Your task to perform on an android device: Open the phone app and click the voicemail tab. Image 0: 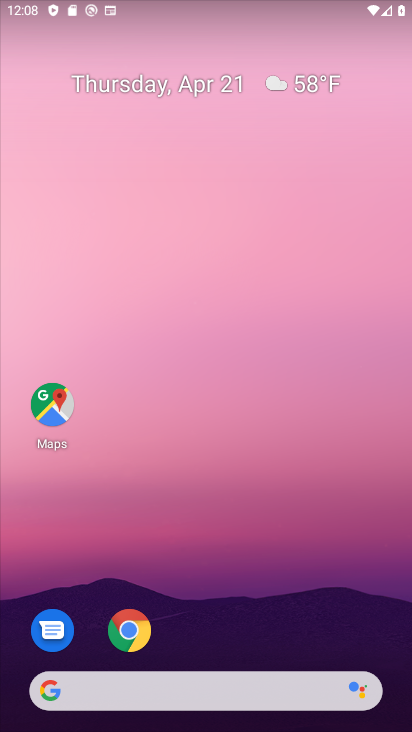
Step 0: drag from (130, 616) to (204, 61)
Your task to perform on an android device: Open the phone app and click the voicemail tab. Image 1: 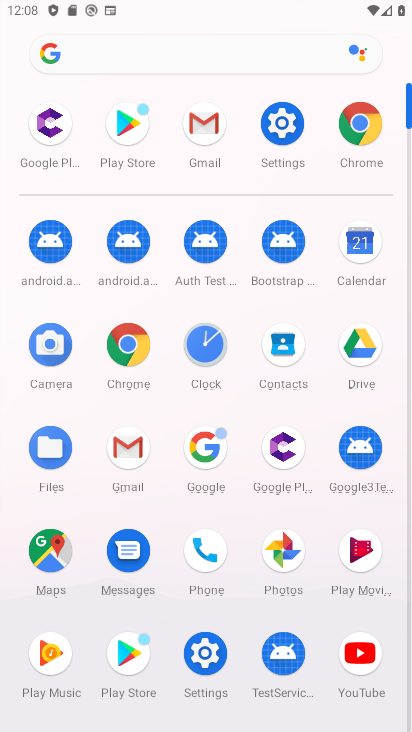
Step 1: click (197, 554)
Your task to perform on an android device: Open the phone app and click the voicemail tab. Image 2: 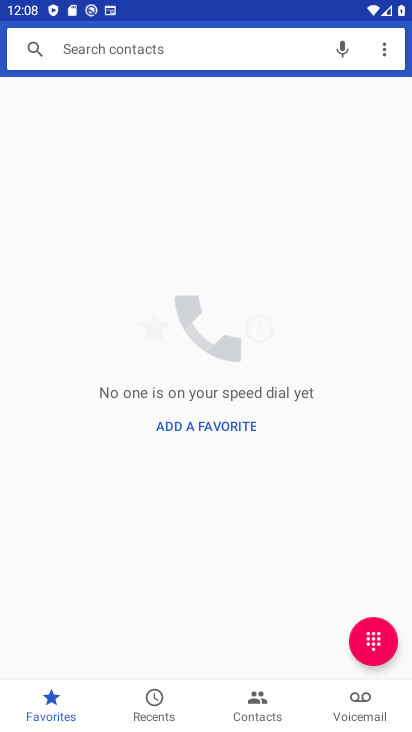
Step 2: click (365, 709)
Your task to perform on an android device: Open the phone app and click the voicemail tab. Image 3: 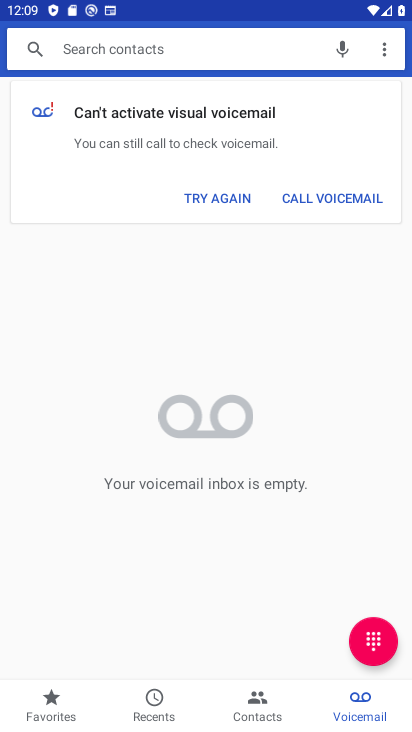
Step 3: task complete